Your task to perform on an android device: Open Android settings Image 0: 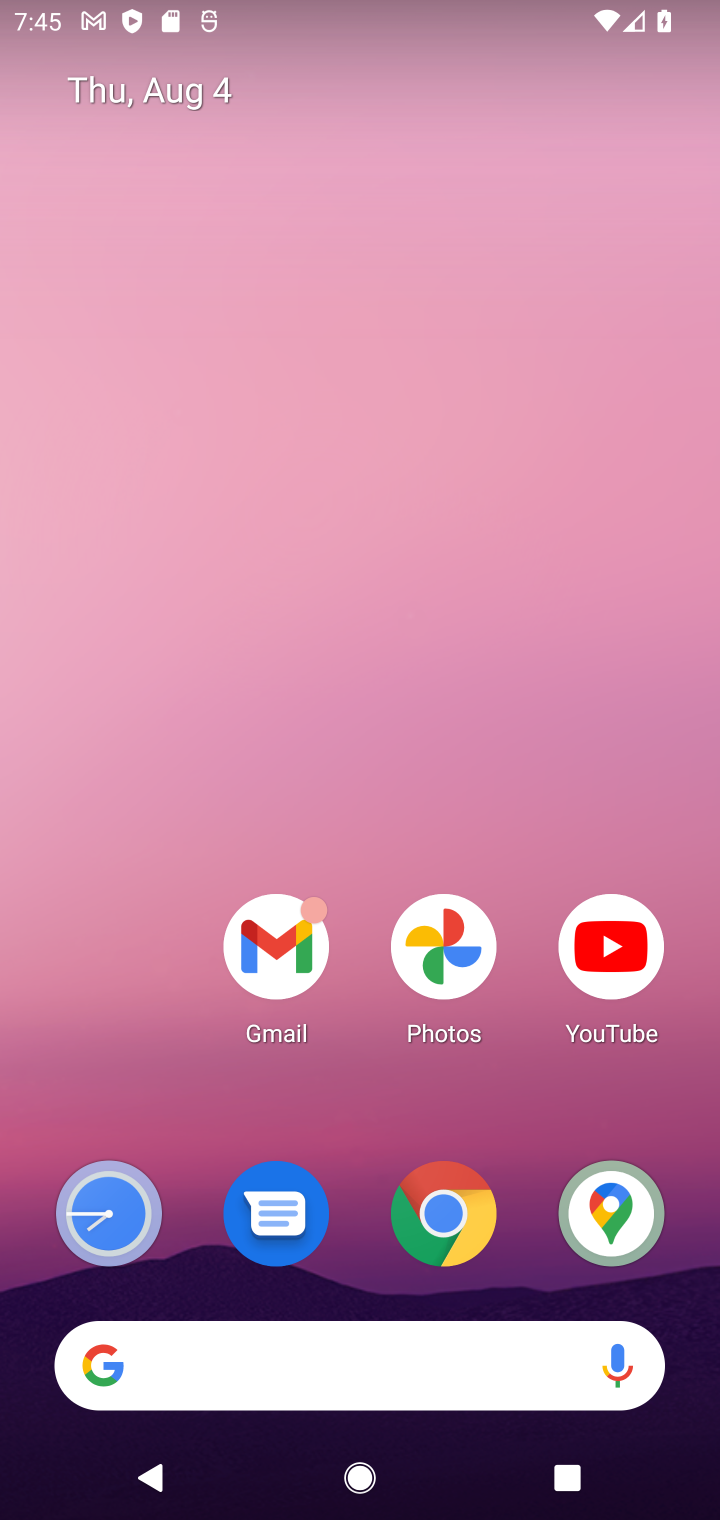
Step 0: drag from (375, 1288) to (459, 27)
Your task to perform on an android device: Open Android settings Image 1: 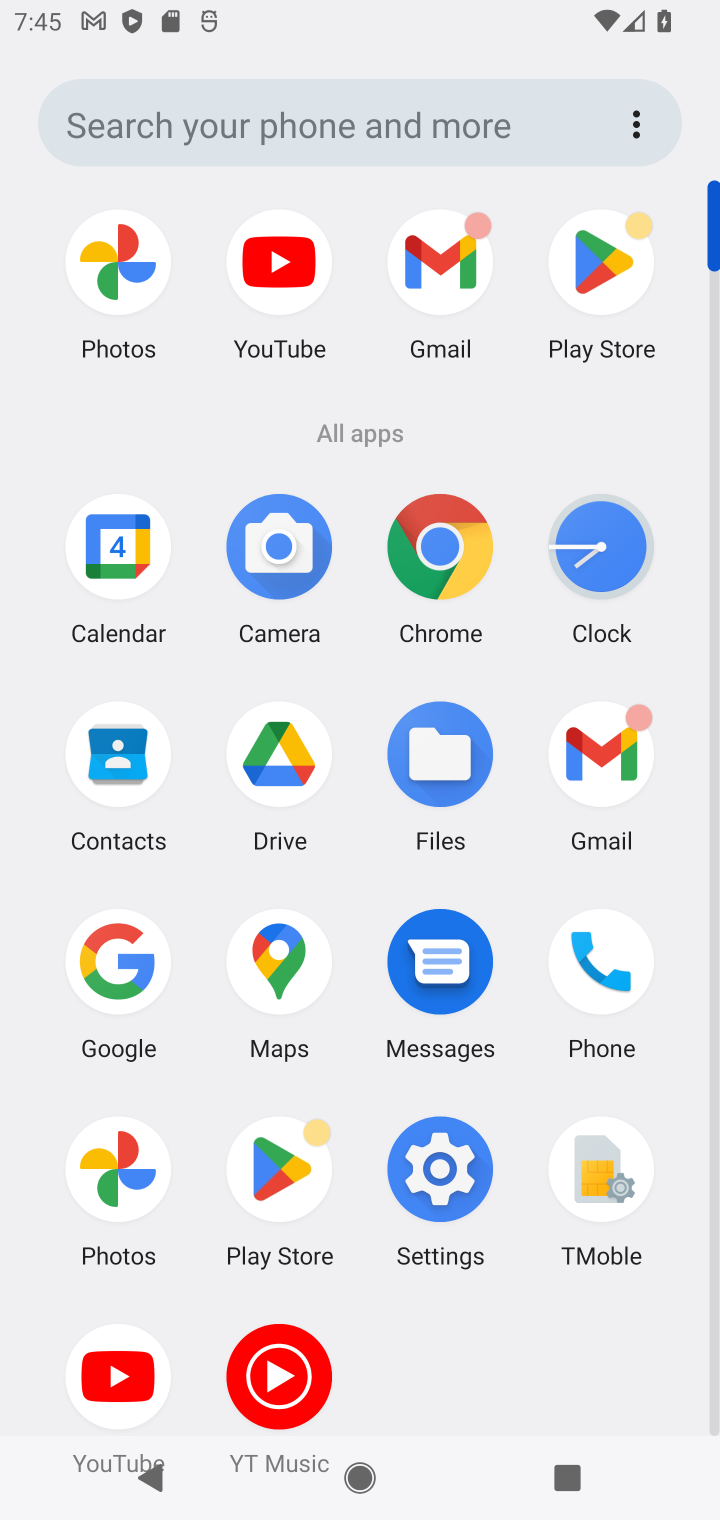
Step 1: click (461, 1173)
Your task to perform on an android device: Open Android settings Image 2: 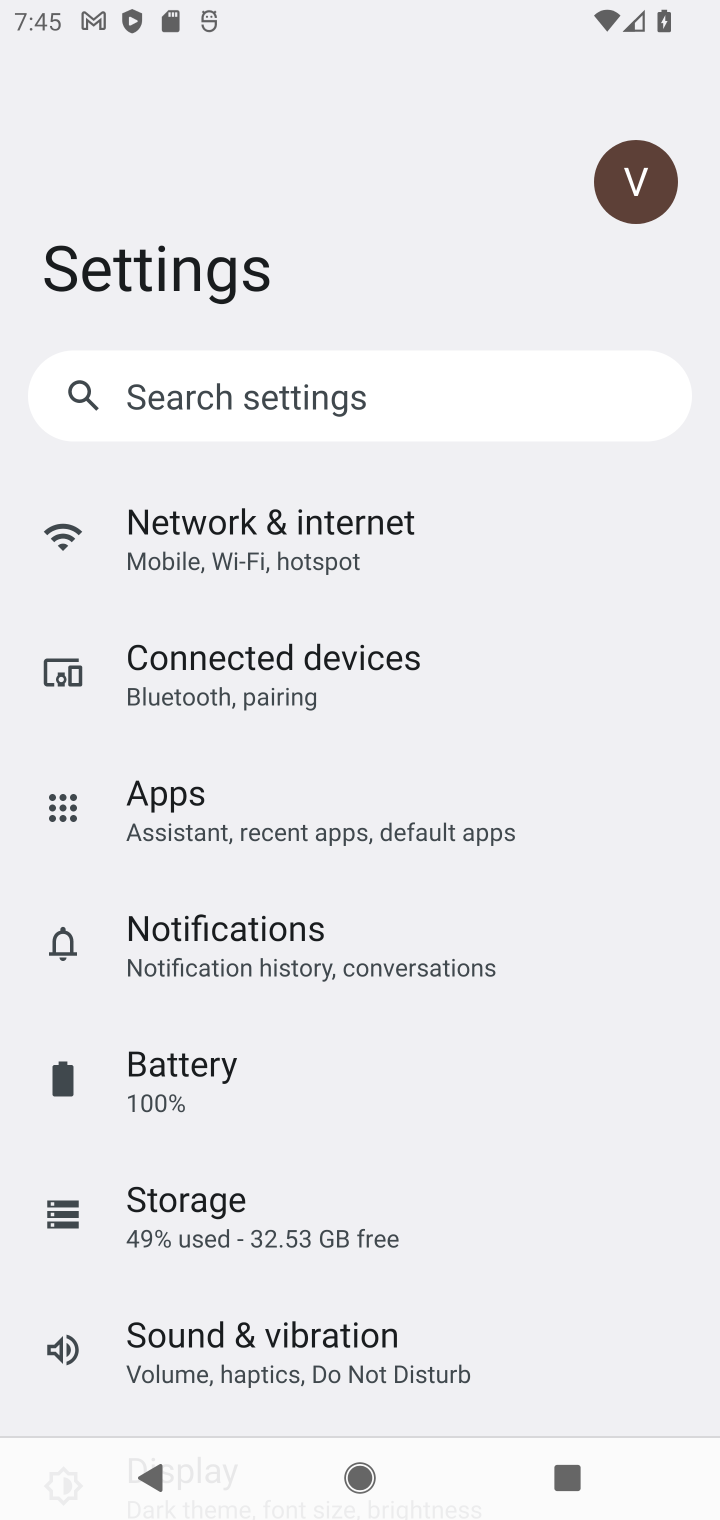
Step 2: task complete